Your task to perform on an android device: Search for amazon basics triple a on ebay, select the first entry, add it to the cart, then select checkout. Image 0: 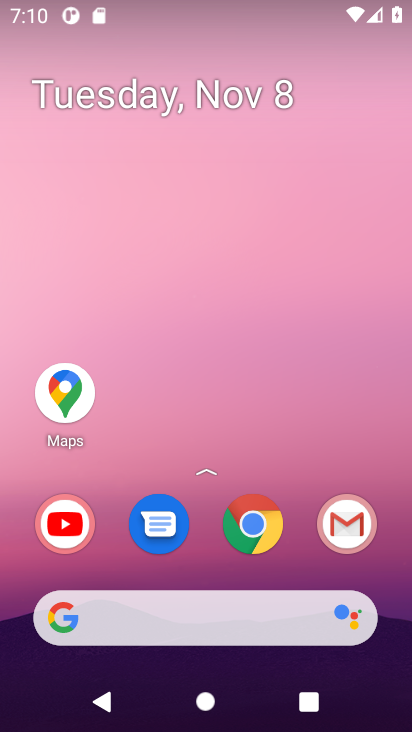
Step 0: click (251, 529)
Your task to perform on an android device: Search for amazon basics triple a on ebay, select the first entry, add it to the cart, then select checkout. Image 1: 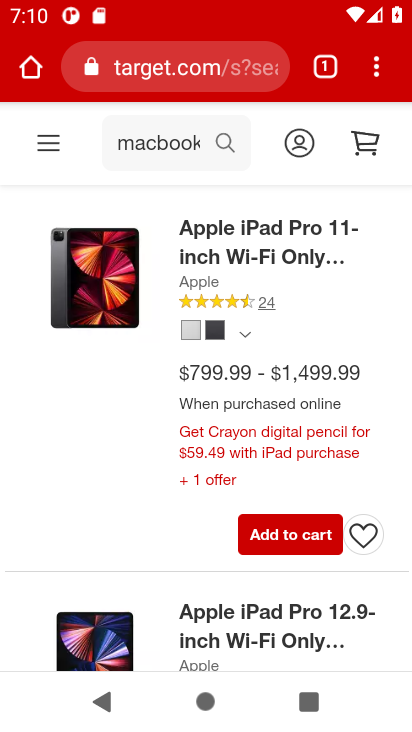
Step 1: click (170, 65)
Your task to perform on an android device: Search for amazon basics triple a on ebay, select the first entry, add it to the cart, then select checkout. Image 2: 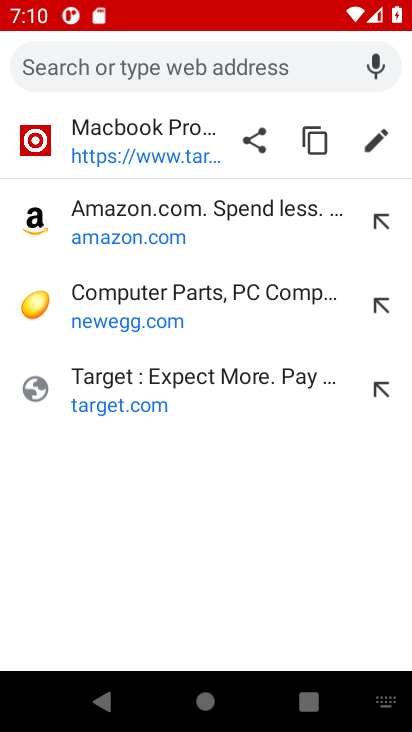
Step 2: type "ebay.com"
Your task to perform on an android device: Search for amazon basics triple a on ebay, select the first entry, add it to the cart, then select checkout. Image 3: 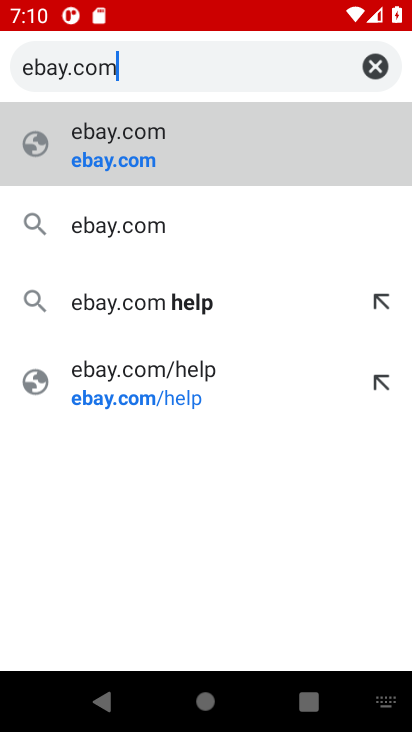
Step 3: click (103, 152)
Your task to perform on an android device: Search for amazon basics triple a on ebay, select the first entry, add it to the cart, then select checkout. Image 4: 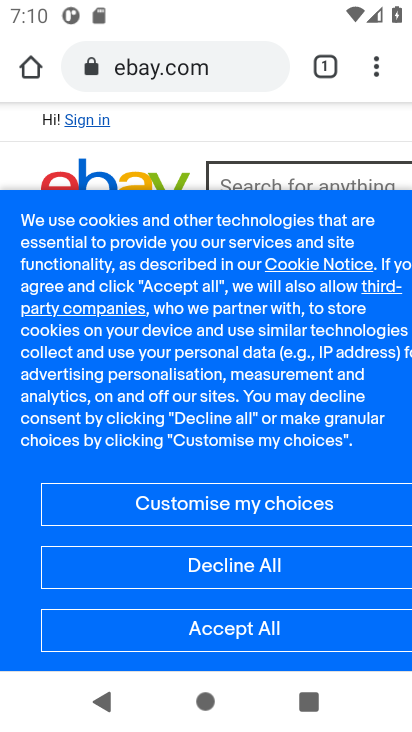
Step 4: click (260, 175)
Your task to perform on an android device: Search for amazon basics triple a on ebay, select the first entry, add it to the cart, then select checkout. Image 5: 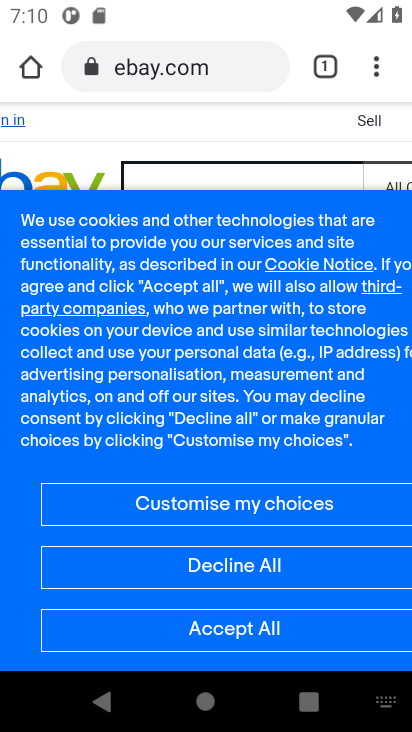
Step 5: type "amazon basics triple a"
Your task to perform on an android device: Search for amazon basics triple a on ebay, select the first entry, add it to the cart, then select checkout. Image 6: 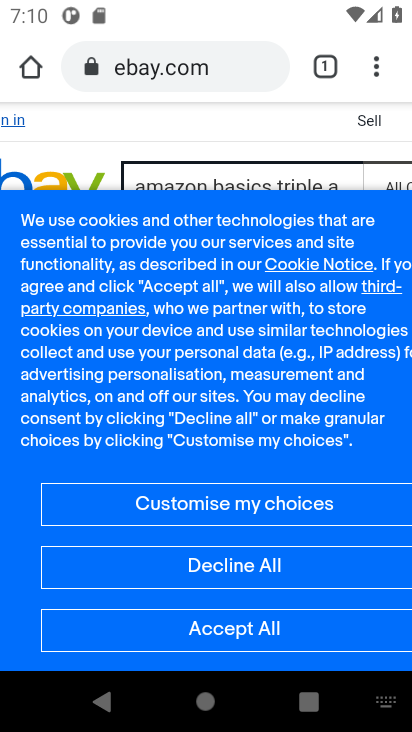
Step 6: click (233, 567)
Your task to perform on an android device: Search for amazon basics triple a on ebay, select the first entry, add it to the cart, then select checkout. Image 7: 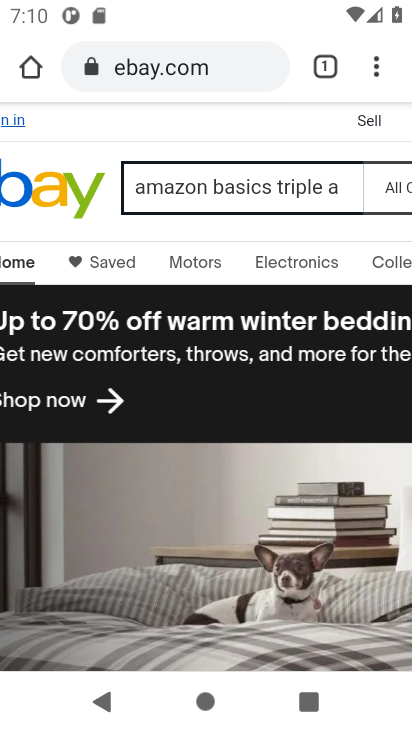
Step 7: drag from (329, 194) to (223, 193)
Your task to perform on an android device: Search for amazon basics triple a on ebay, select the first entry, add it to the cart, then select checkout. Image 8: 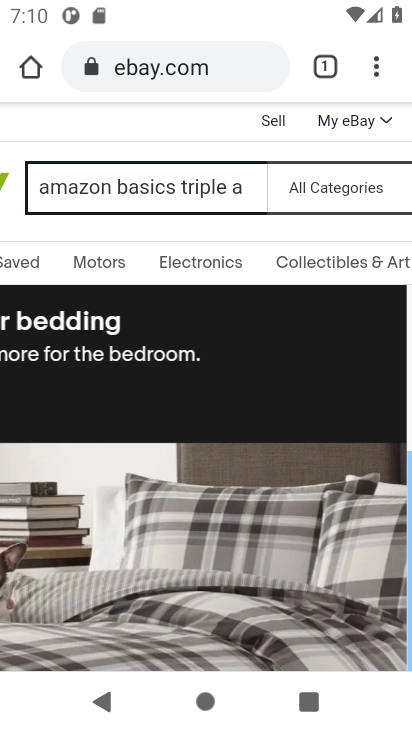
Step 8: drag from (325, 192) to (207, 199)
Your task to perform on an android device: Search for amazon basics triple a on ebay, select the first entry, add it to the cart, then select checkout. Image 9: 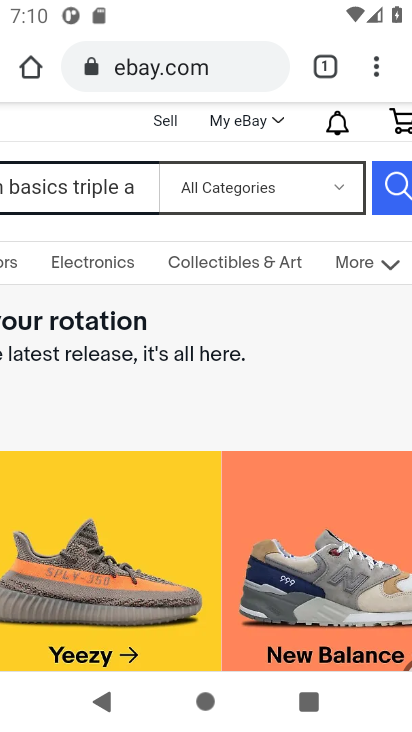
Step 9: click (398, 188)
Your task to perform on an android device: Search for amazon basics triple a on ebay, select the first entry, add it to the cart, then select checkout. Image 10: 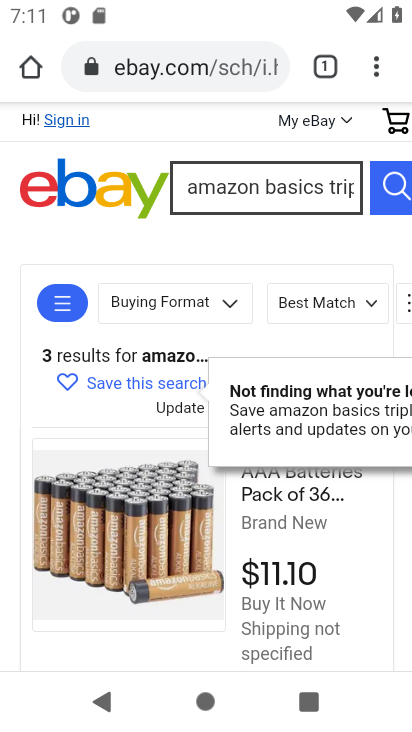
Step 10: click (143, 501)
Your task to perform on an android device: Search for amazon basics triple a on ebay, select the first entry, add it to the cart, then select checkout. Image 11: 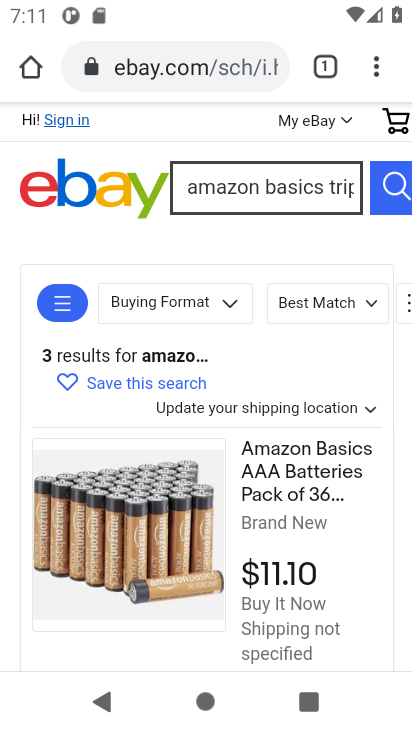
Step 11: click (156, 564)
Your task to perform on an android device: Search for amazon basics triple a on ebay, select the first entry, add it to the cart, then select checkout. Image 12: 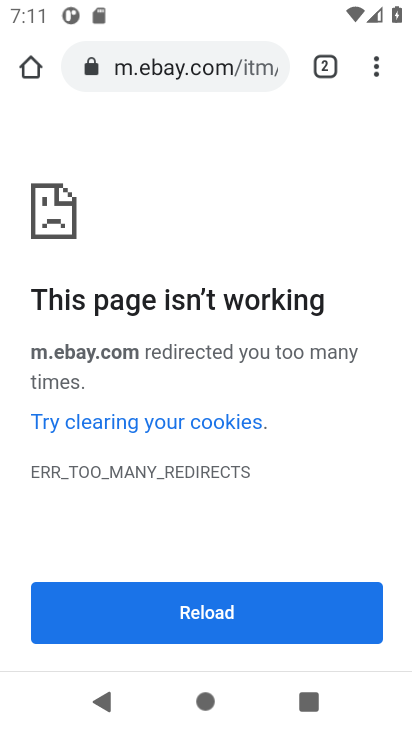
Step 12: click (238, 615)
Your task to perform on an android device: Search for amazon basics triple a on ebay, select the first entry, add it to the cart, then select checkout. Image 13: 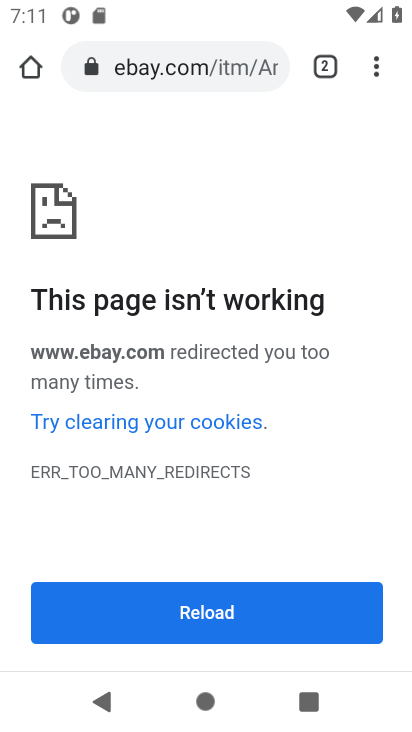
Step 13: click (213, 614)
Your task to perform on an android device: Search for amazon basics triple a on ebay, select the first entry, add it to the cart, then select checkout. Image 14: 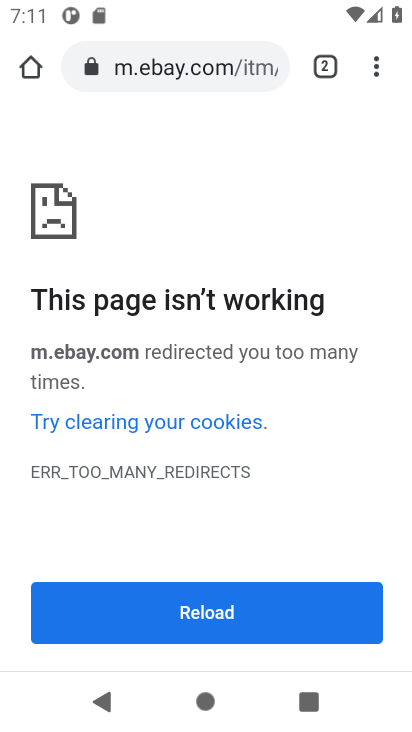
Step 14: click (219, 609)
Your task to perform on an android device: Search for amazon basics triple a on ebay, select the first entry, add it to the cart, then select checkout. Image 15: 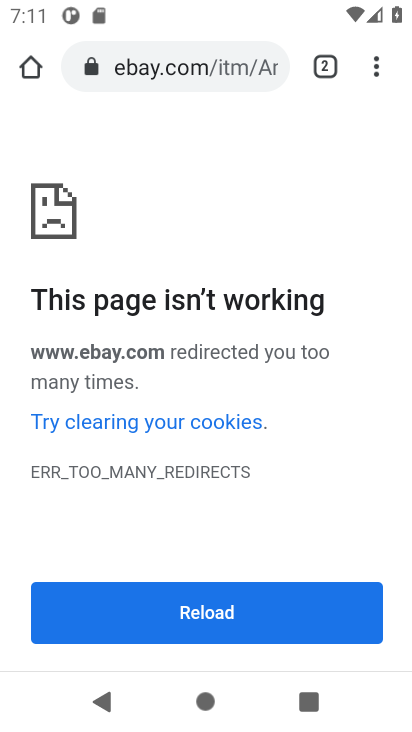
Step 15: press back button
Your task to perform on an android device: Search for amazon basics triple a on ebay, select the first entry, add it to the cart, then select checkout. Image 16: 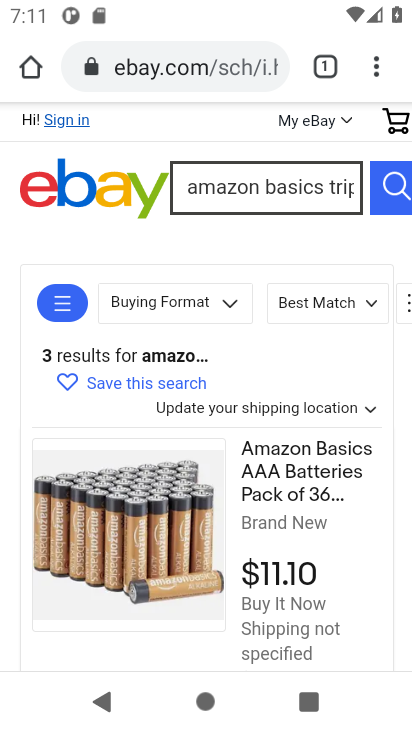
Step 16: drag from (159, 578) to (173, 297)
Your task to perform on an android device: Search for amazon basics triple a on ebay, select the first entry, add it to the cart, then select checkout. Image 17: 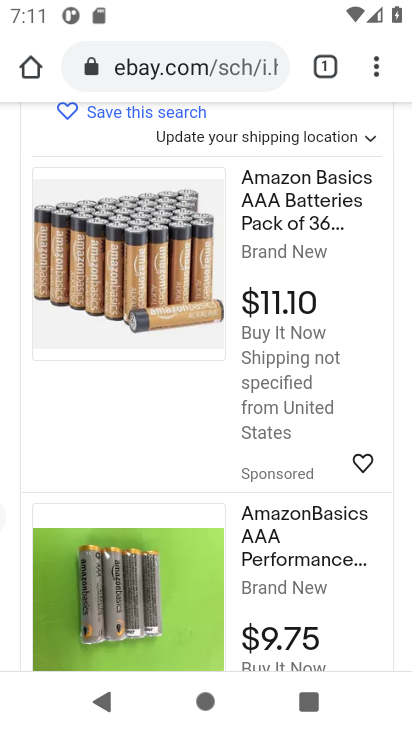
Step 17: click (277, 235)
Your task to perform on an android device: Search for amazon basics triple a on ebay, select the first entry, add it to the cart, then select checkout. Image 18: 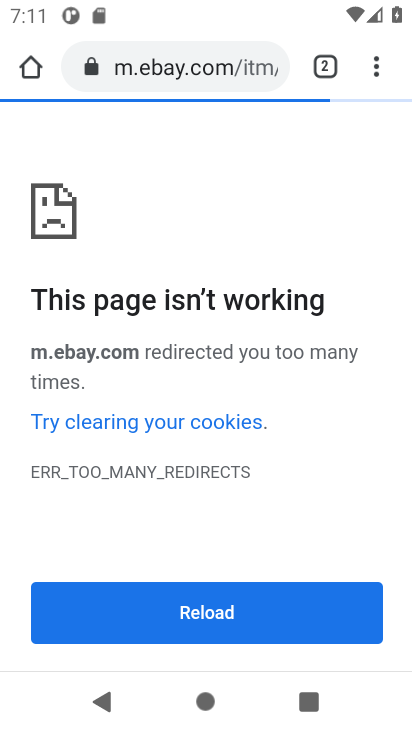
Step 18: task complete